Your task to perform on an android device: turn off sleep mode Image 0: 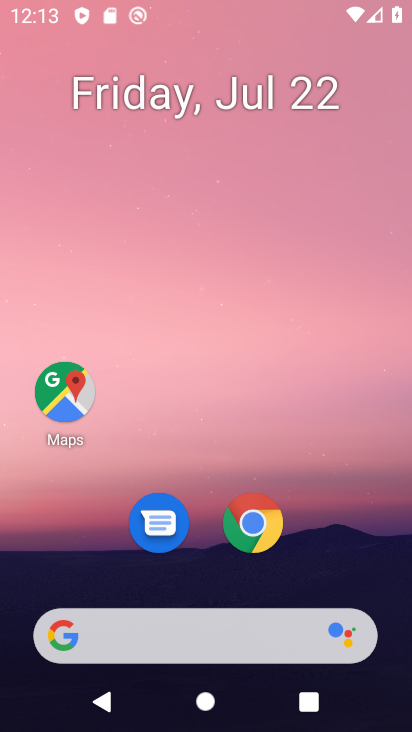
Step 0: press home button
Your task to perform on an android device: turn off sleep mode Image 1: 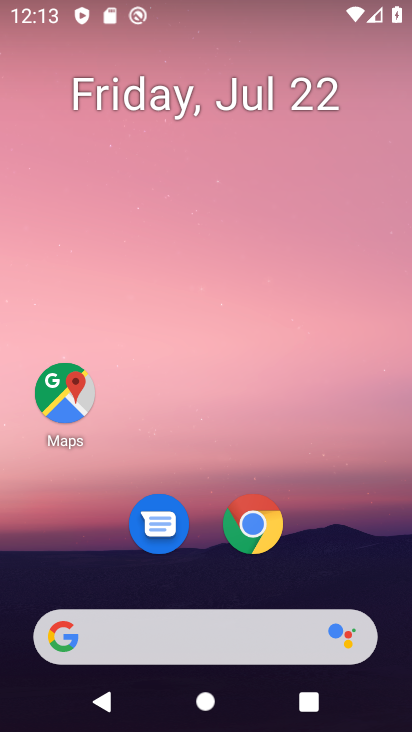
Step 1: drag from (188, 636) to (263, 101)
Your task to perform on an android device: turn off sleep mode Image 2: 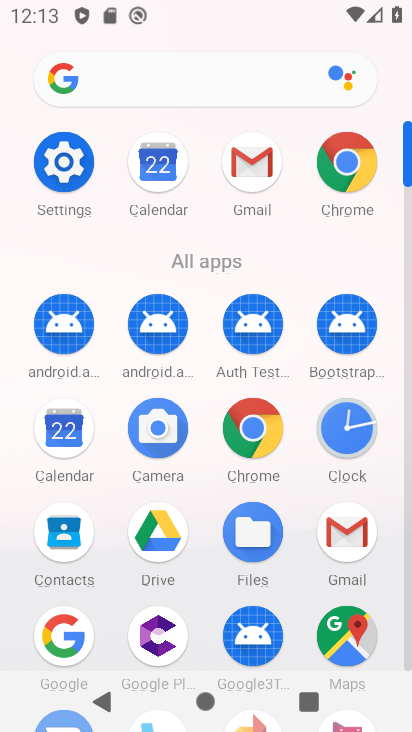
Step 2: click (73, 162)
Your task to perform on an android device: turn off sleep mode Image 3: 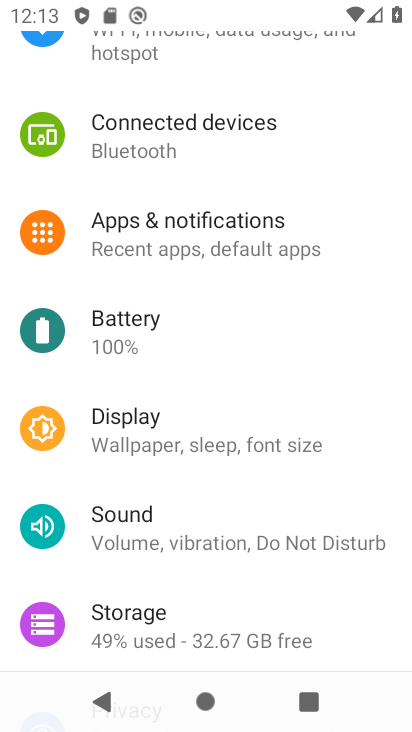
Step 3: click (236, 444)
Your task to perform on an android device: turn off sleep mode Image 4: 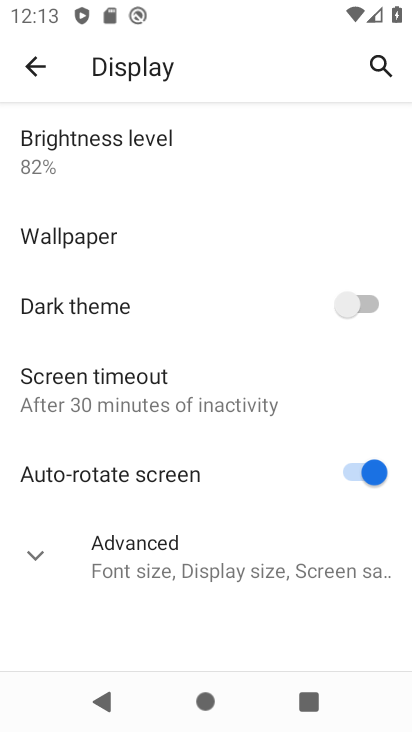
Step 4: task complete